Your task to perform on an android device: toggle priority inbox in the gmail app Image 0: 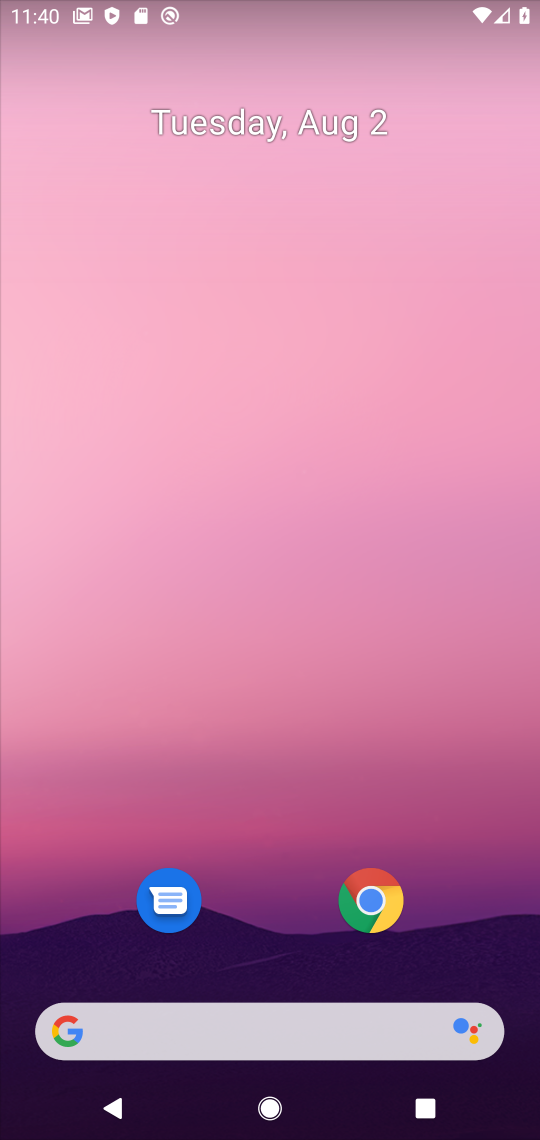
Step 0: drag from (261, 799) to (299, 125)
Your task to perform on an android device: toggle priority inbox in the gmail app Image 1: 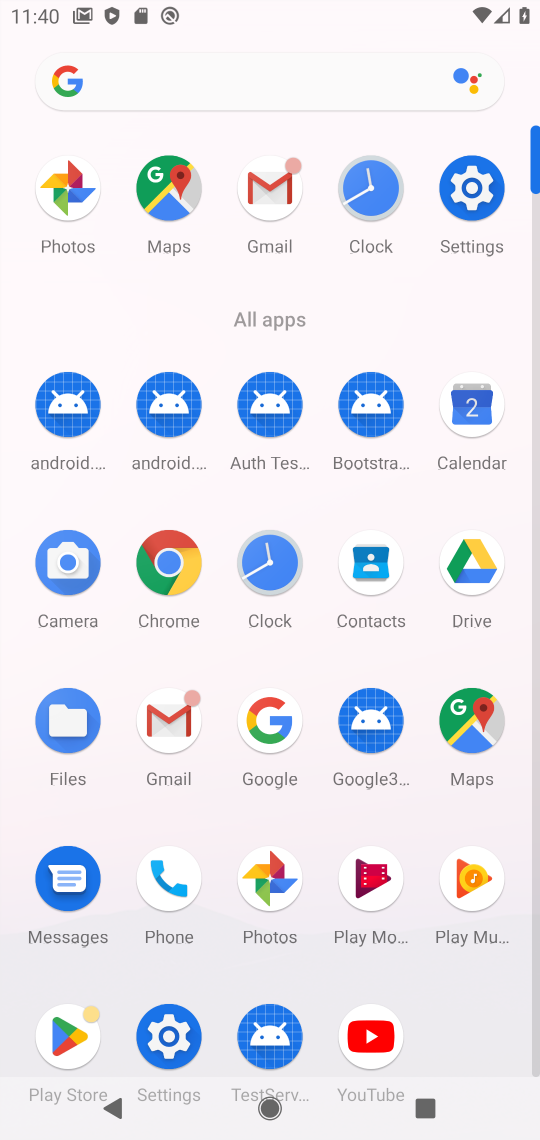
Step 1: click (251, 160)
Your task to perform on an android device: toggle priority inbox in the gmail app Image 2: 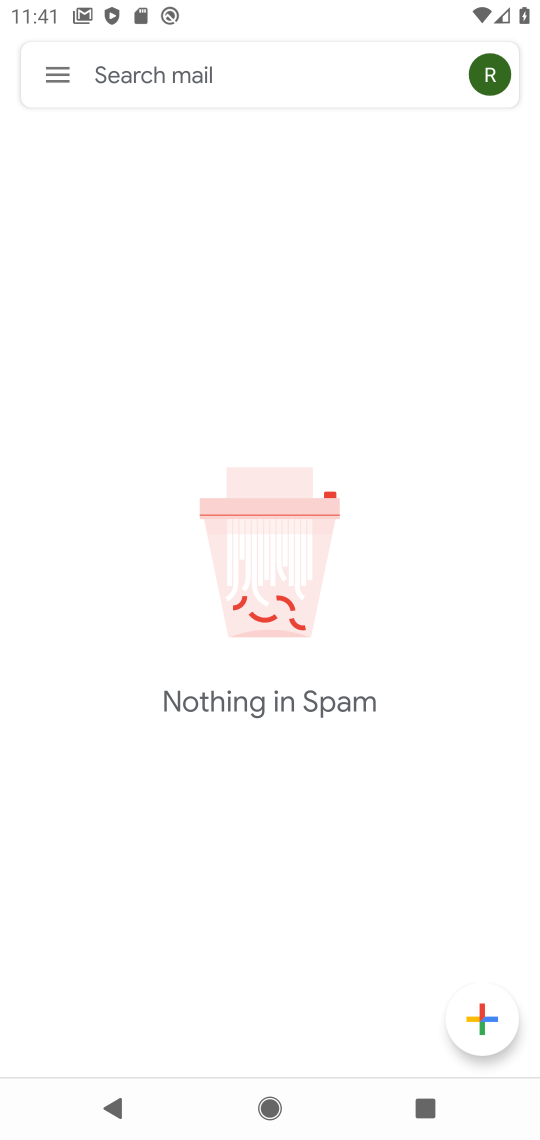
Step 2: click (63, 52)
Your task to perform on an android device: toggle priority inbox in the gmail app Image 3: 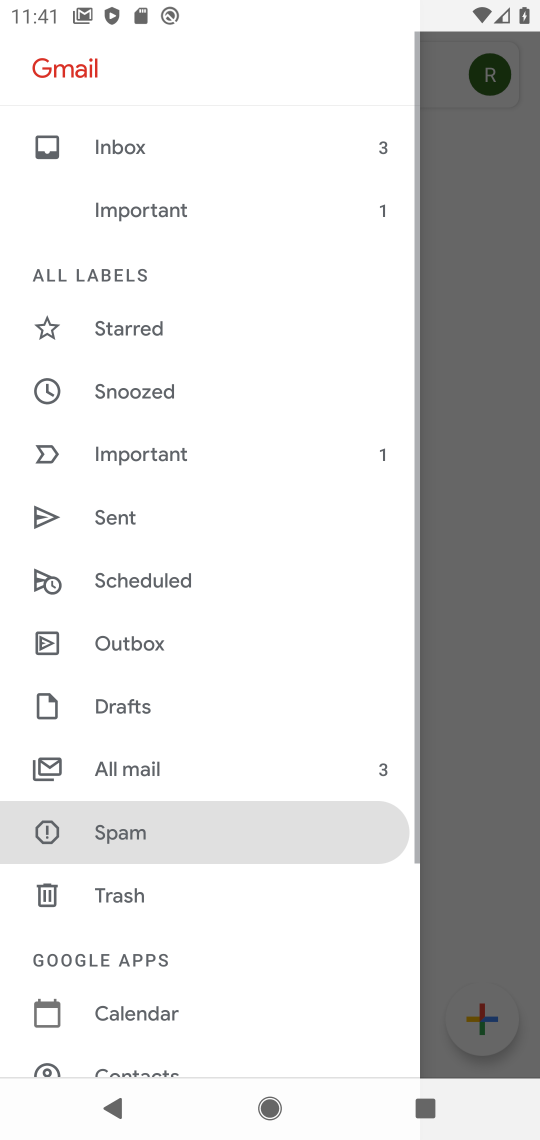
Step 3: drag from (149, 957) to (241, 192)
Your task to perform on an android device: toggle priority inbox in the gmail app Image 4: 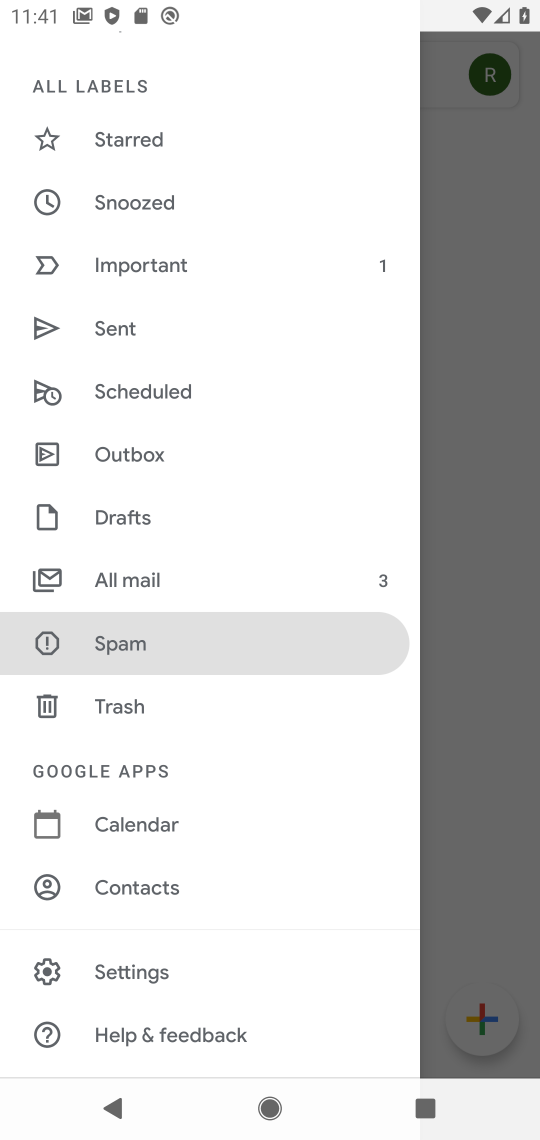
Step 4: click (150, 970)
Your task to perform on an android device: toggle priority inbox in the gmail app Image 5: 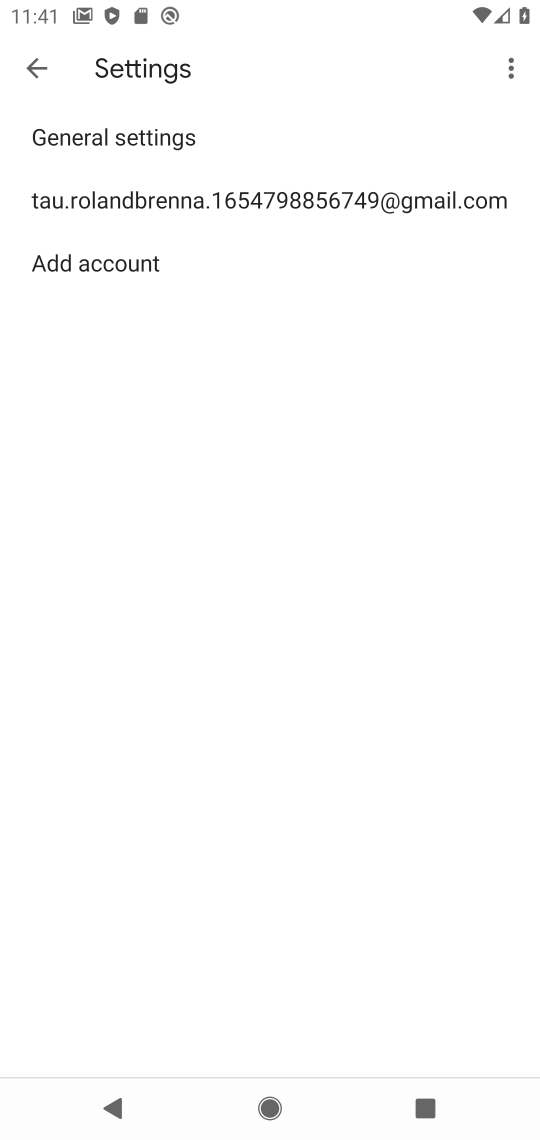
Step 5: click (287, 202)
Your task to perform on an android device: toggle priority inbox in the gmail app Image 6: 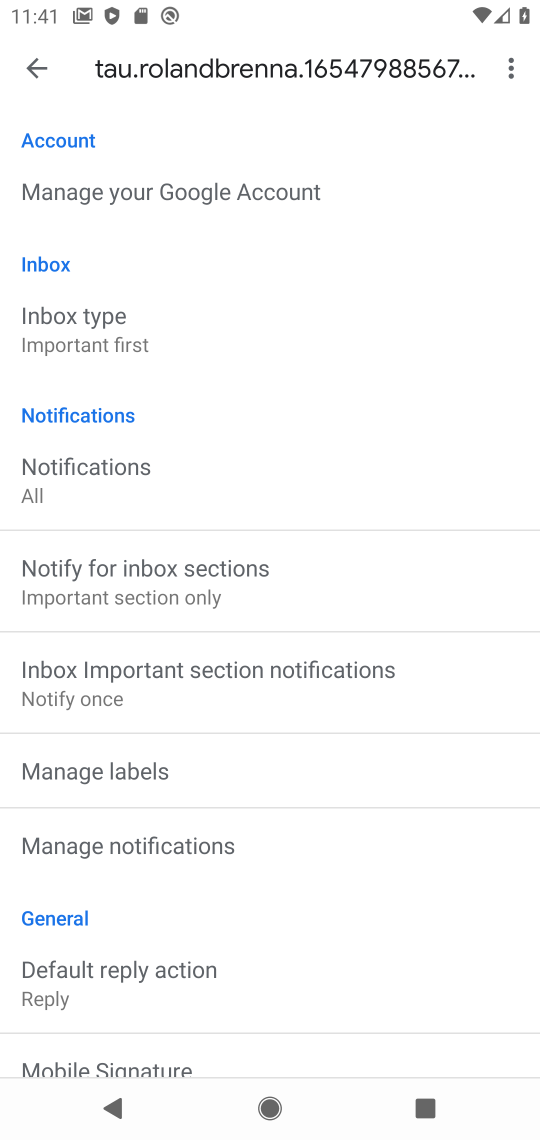
Step 6: click (126, 322)
Your task to perform on an android device: toggle priority inbox in the gmail app Image 7: 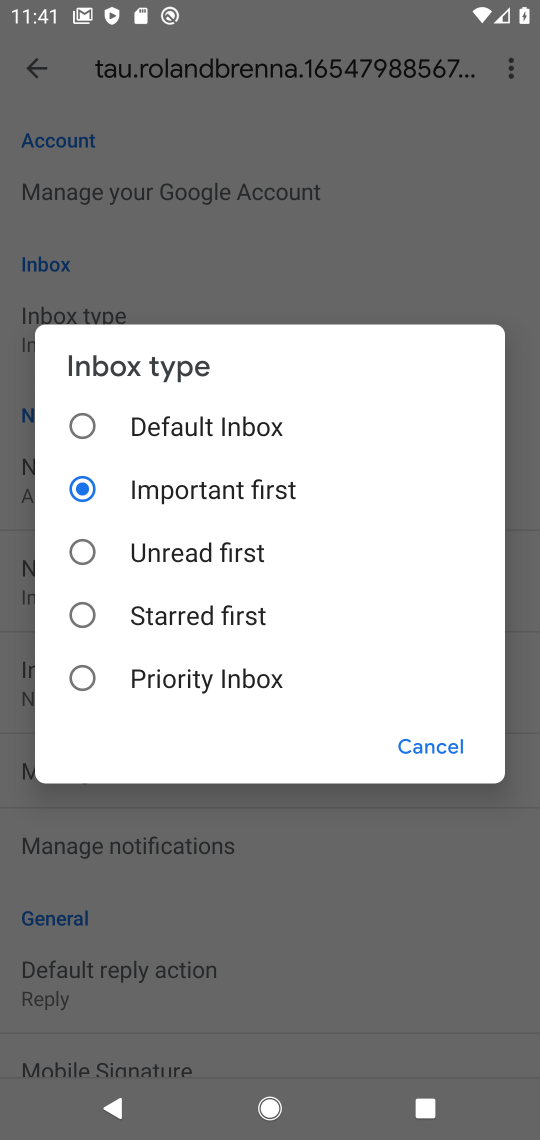
Step 7: click (121, 683)
Your task to perform on an android device: toggle priority inbox in the gmail app Image 8: 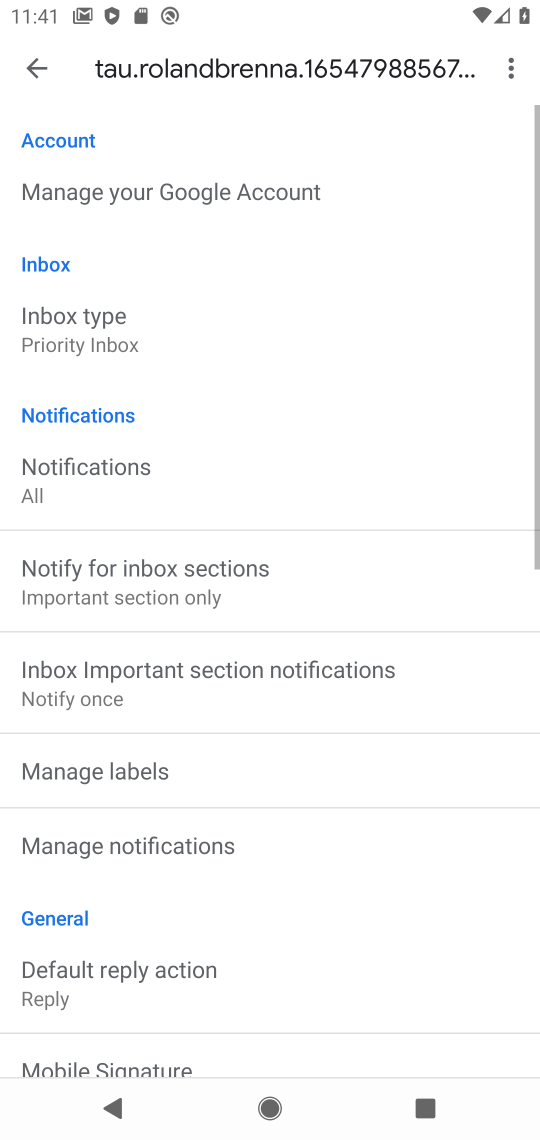
Step 8: task complete